Your task to perform on an android device: open device folders in google photos Image 0: 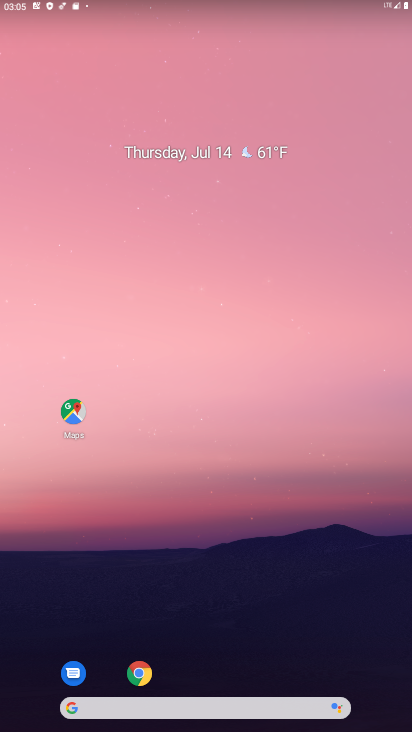
Step 0: drag from (342, 612) to (242, 12)
Your task to perform on an android device: open device folders in google photos Image 1: 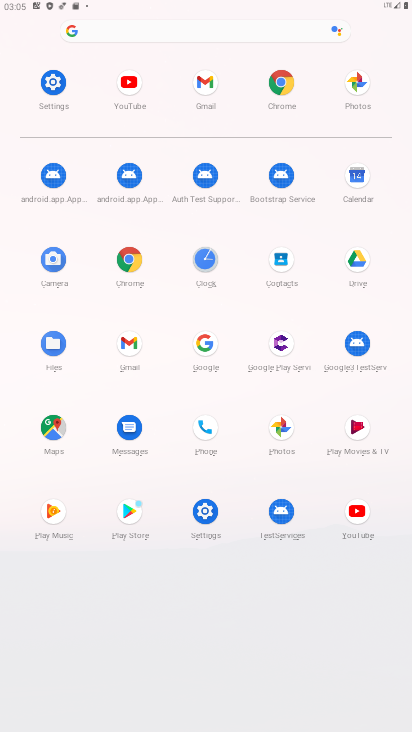
Step 1: click (269, 424)
Your task to perform on an android device: open device folders in google photos Image 2: 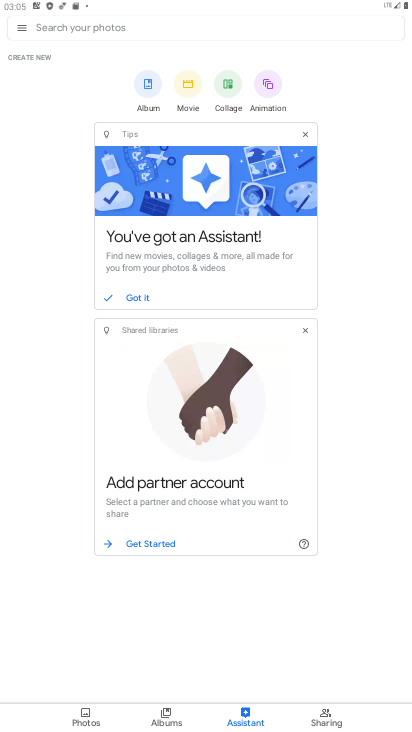
Step 2: click (23, 30)
Your task to perform on an android device: open device folders in google photos Image 3: 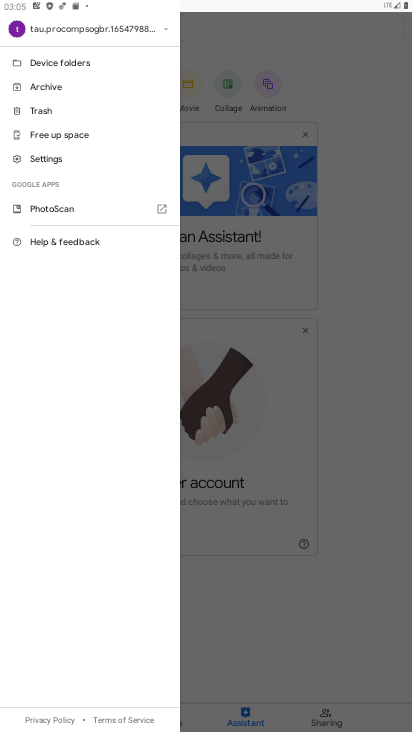
Step 3: click (66, 71)
Your task to perform on an android device: open device folders in google photos Image 4: 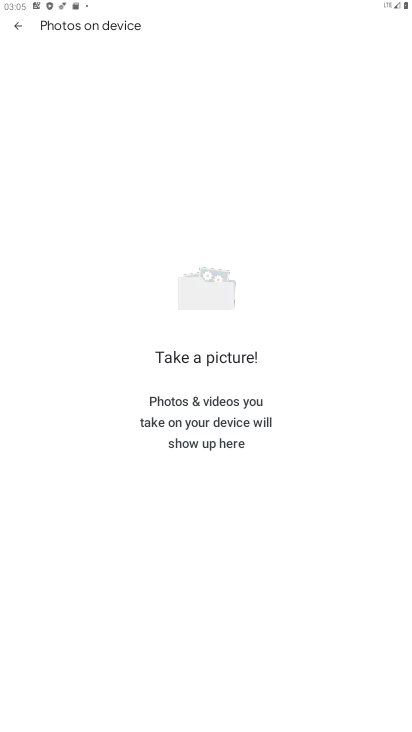
Step 4: task complete